Your task to perform on an android device: Do I have any events today? Image 0: 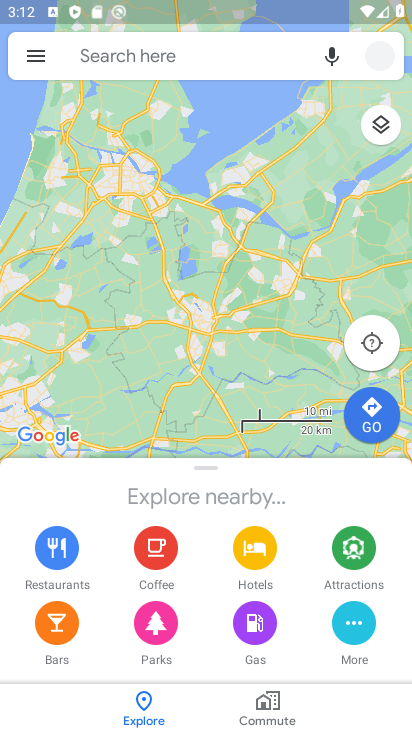
Step 0: press home button
Your task to perform on an android device: Do I have any events today? Image 1: 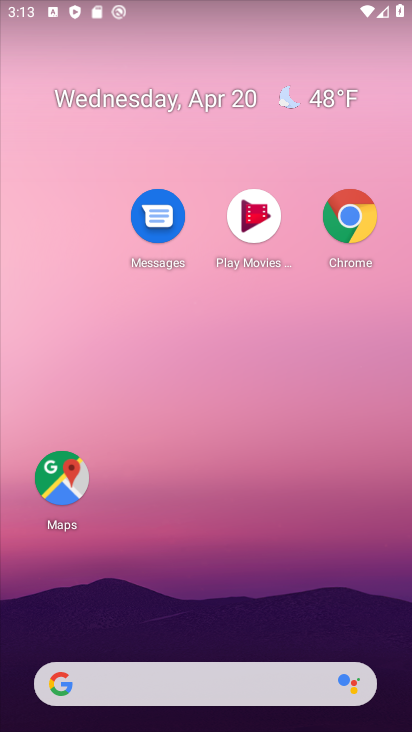
Step 1: drag from (257, 609) to (240, 19)
Your task to perform on an android device: Do I have any events today? Image 2: 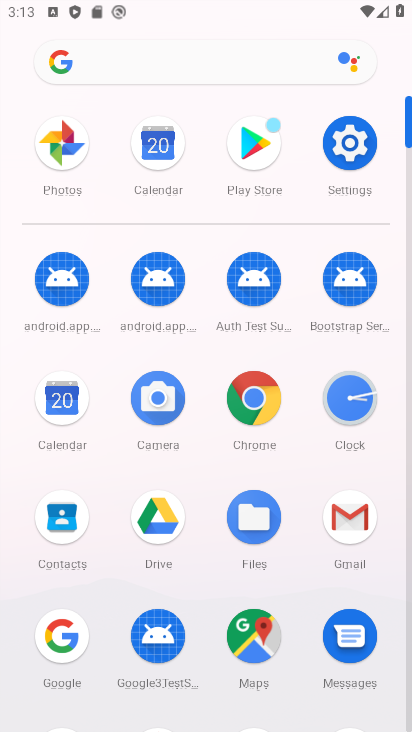
Step 2: click (165, 175)
Your task to perform on an android device: Do I have any events today? Image 3: 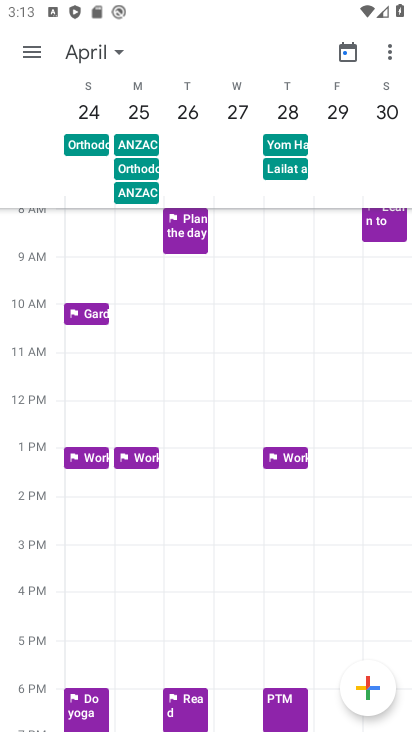
Step 3: task complete